Your task to perform on an android device: Go to notification settings Image 0: 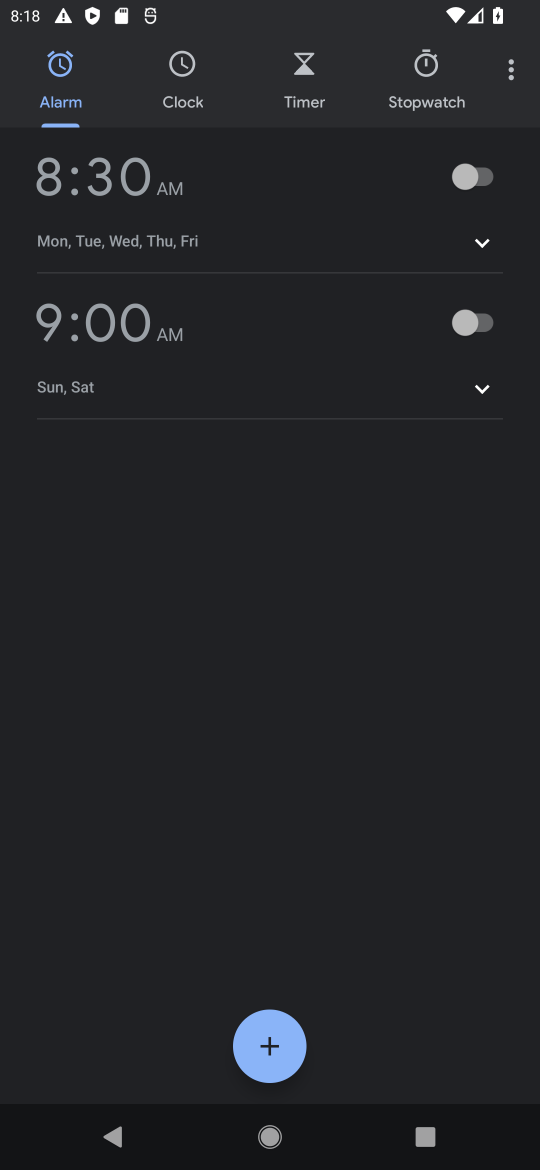
Step 0: press home button
Your task to perform on an android device: Go to notification settings Image 1: 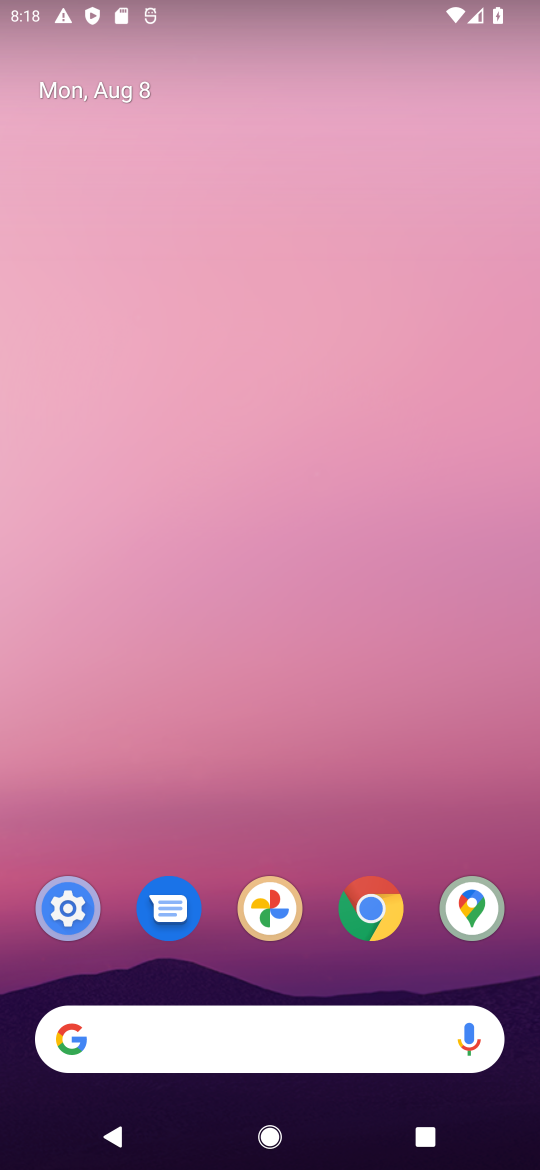
Step 1: click (70, 905)
Your task to perform on an android device: Go to notification settings Image 2: 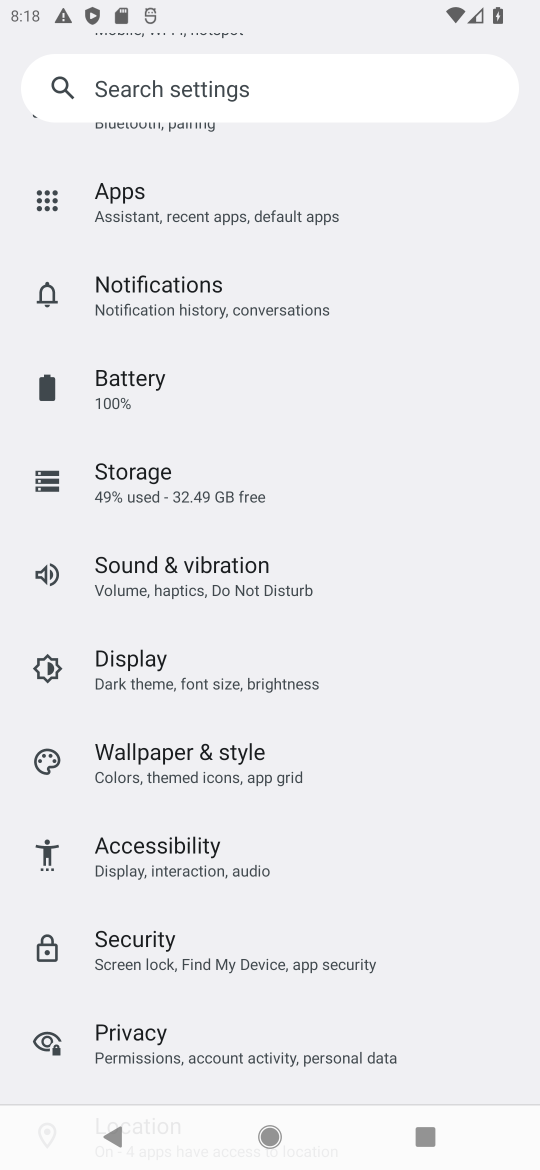
Step 2: click (197, 309)
Your task to perform on an android device: Go to notification settings Image 3: 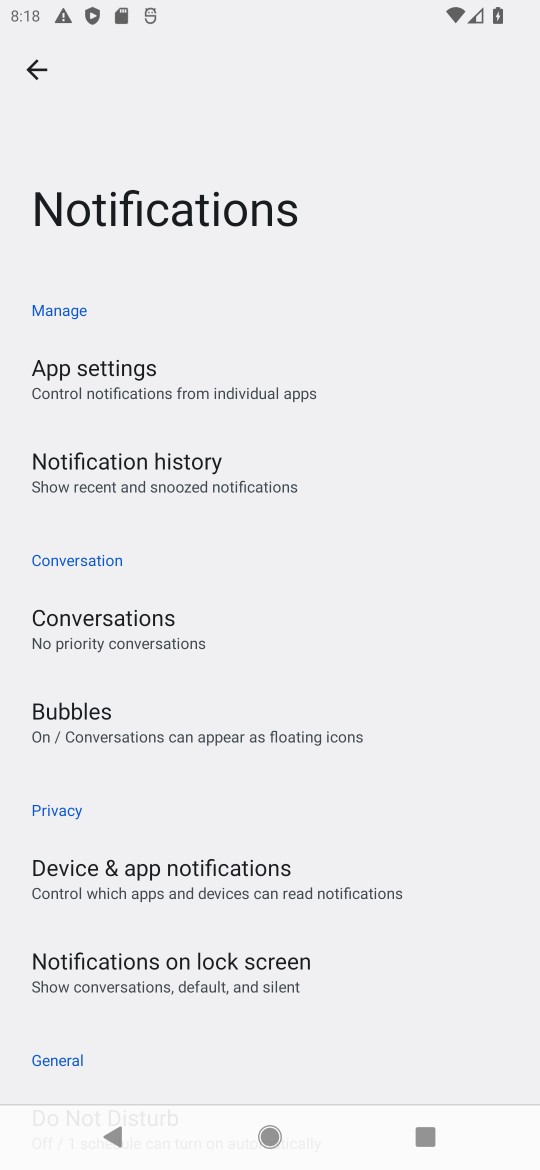
Step 3: task complete